Your task to perform on an android device: turn off location history Image 0: 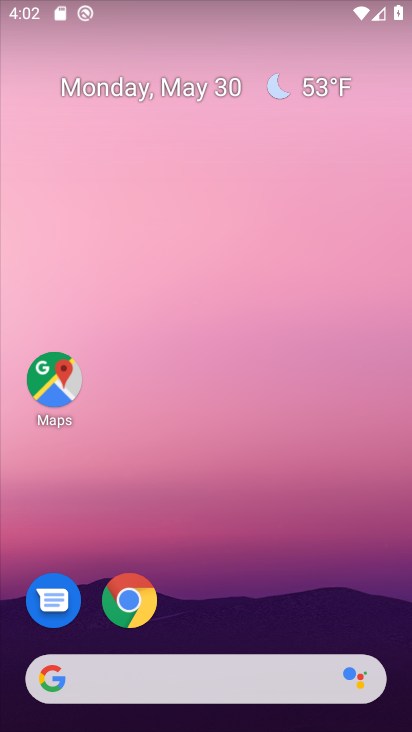
Step 0: drag from (343, 573) to (316, 4)
Your task to perform on an android device: turn off location history Image 1: 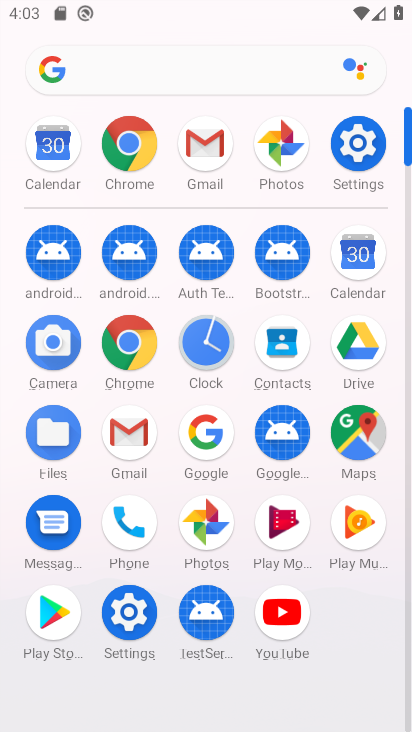
Step 1: click (363, 145)
Your task to perform on an android device: turn off location history Image 2: 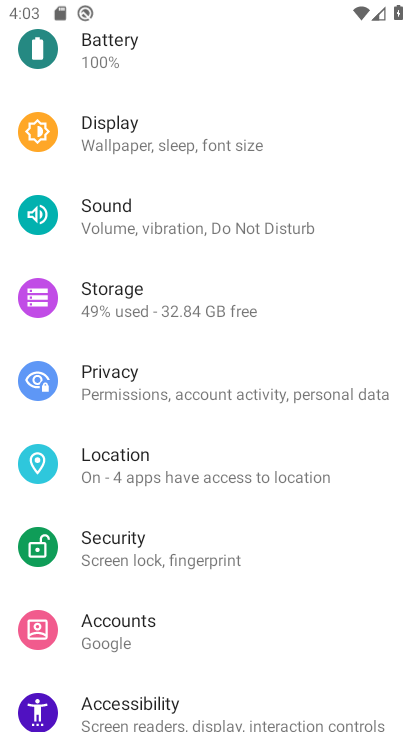
Step 2: click (213, 464)
Your task to perform on an android device: turn off location history Image 3: 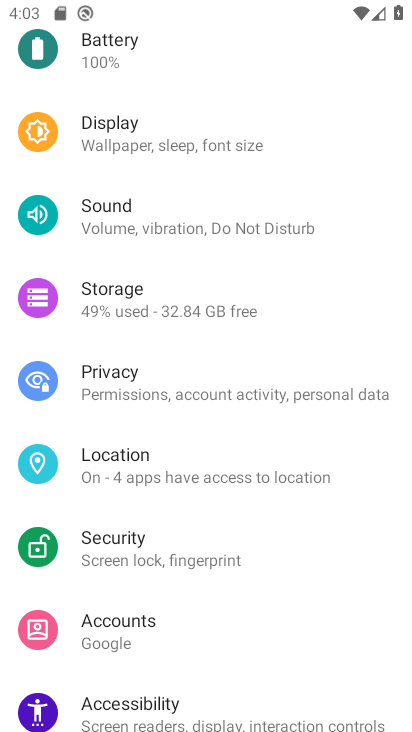
Step 3: click (175, 470)
Your task to perform on an android device: turn off location history Image 4: 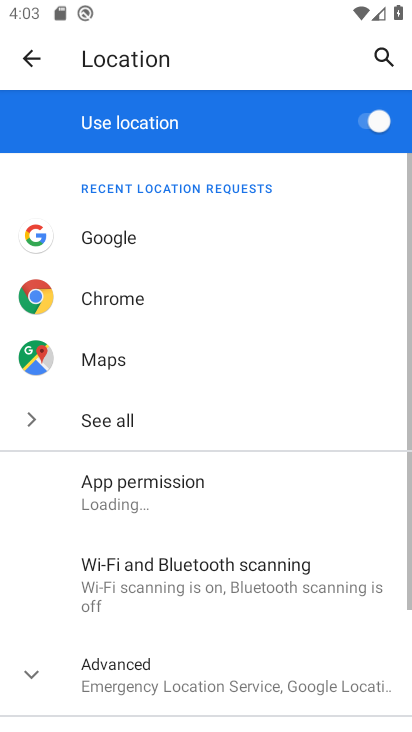
Step 4: drag from (190, 644) to (195, 239)
Your task to perform on an android device: turn off location history Image 5: 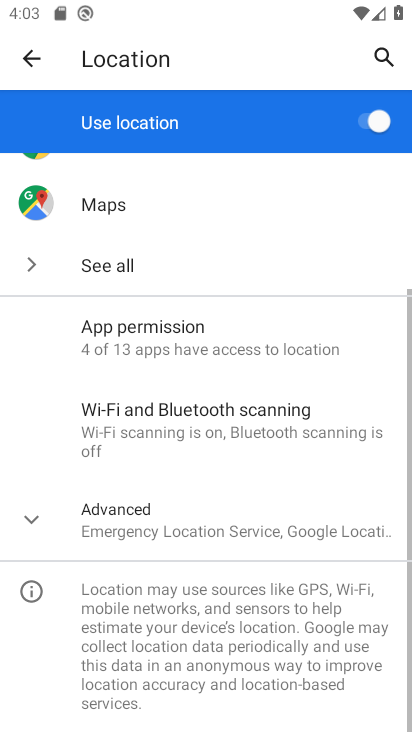
Step 5: click (144, 503)
Your task to perform on an android device: turn off location history Image 6: 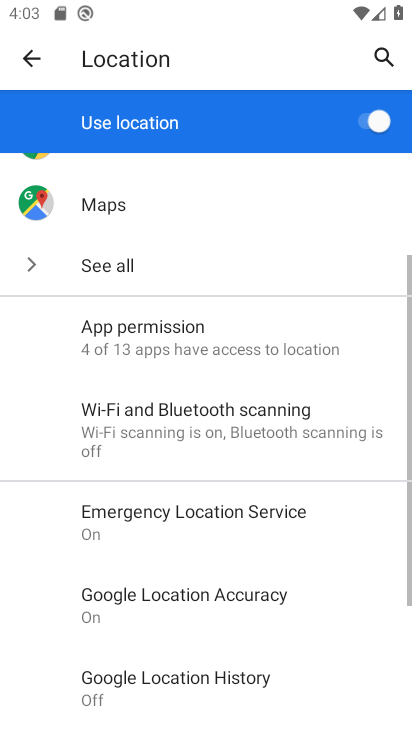
Step 6: drag from (173, 614) to (188, 231)
Your task to perform on an android device: turn off location history Image 7: 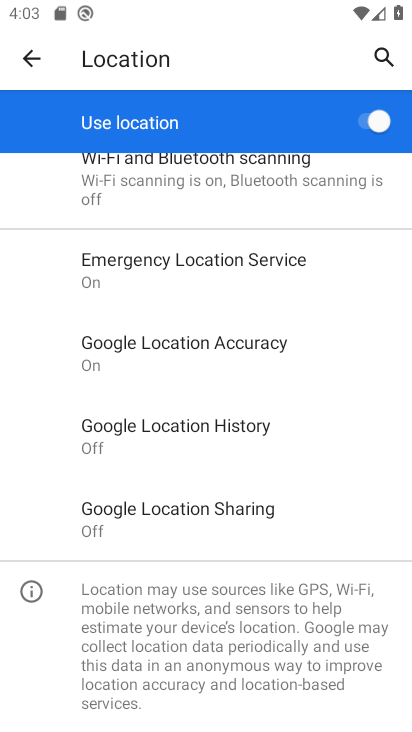
Step 7: click (161, 425)
Your task to perform on an android device: turn off location history Image 8: 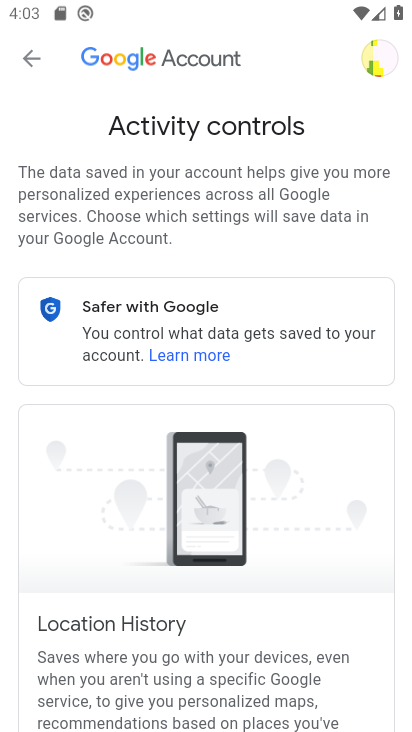
Step 8: drag from (384, 673) to (345, 315)
Your task to perform on an android device: turn off location history Image 9: 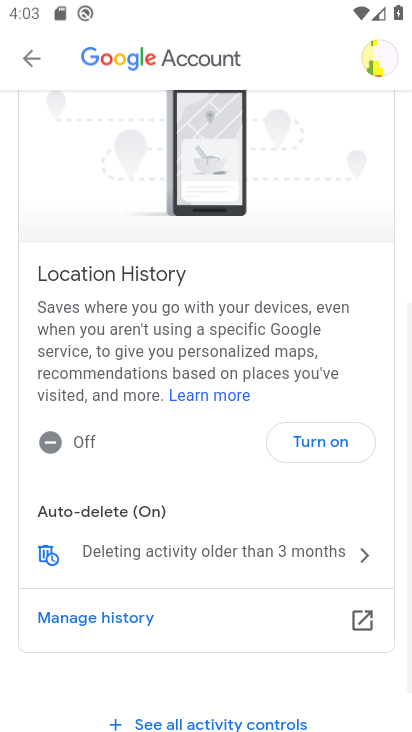
Step 9: drag from (253, 616) to (252, 209)
Your task to perform on an android device: turn off location history Image 10: 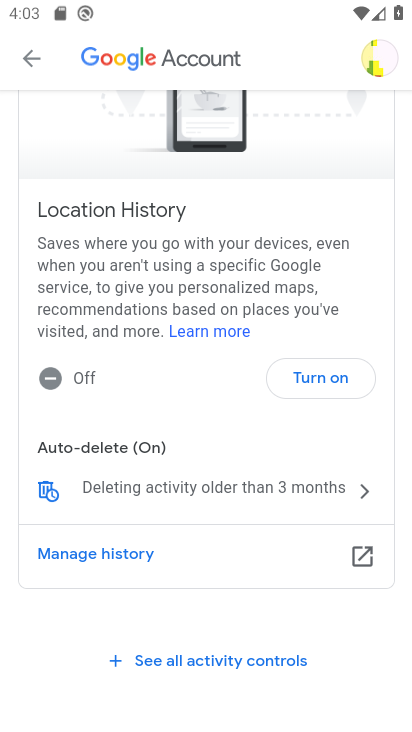
Step 10: click (32, 53)
Your task to perform on an android device: turn off location history Image 11: 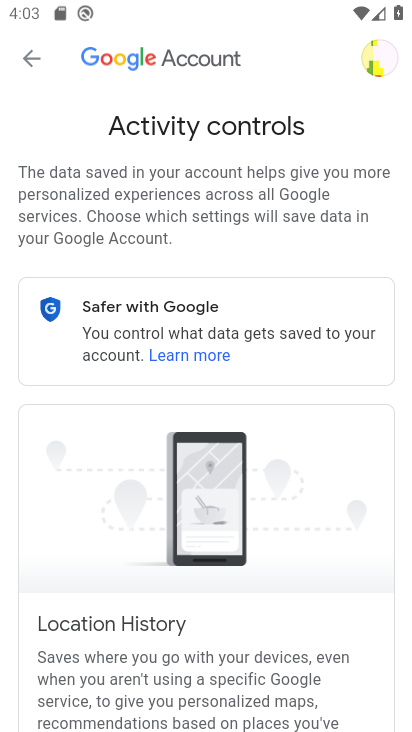
Step 11: drag from (239, 555) to (246, 176)
Your task to perform on an android device: turn off location history Image 12: 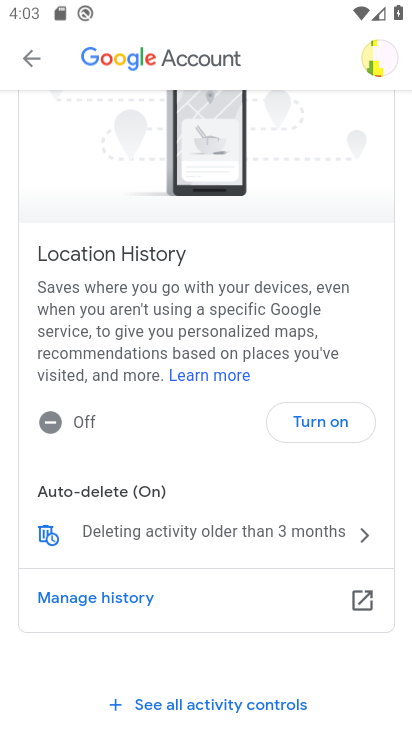
Step 12: drag from (220, 574) to (216, 176)
Your task to perform on an android device: turn off location history Image 13: 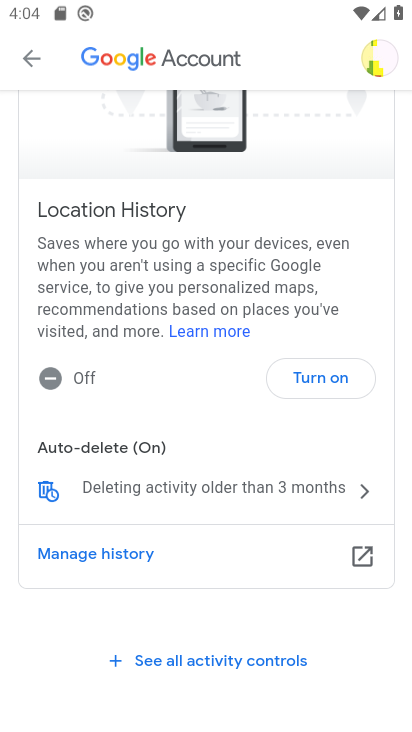
Step 13: click (43, 54)
Your task to perform on an android device: turn off location history Image 14: 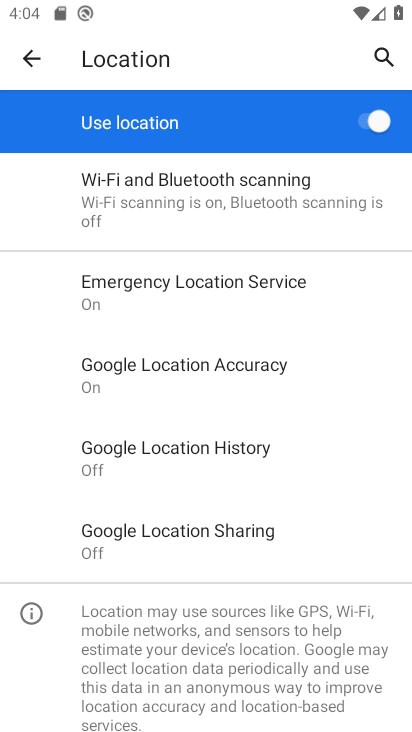
Step 14: click (204, 448)
Your task to perform on an android device: turn off location history Image 15: 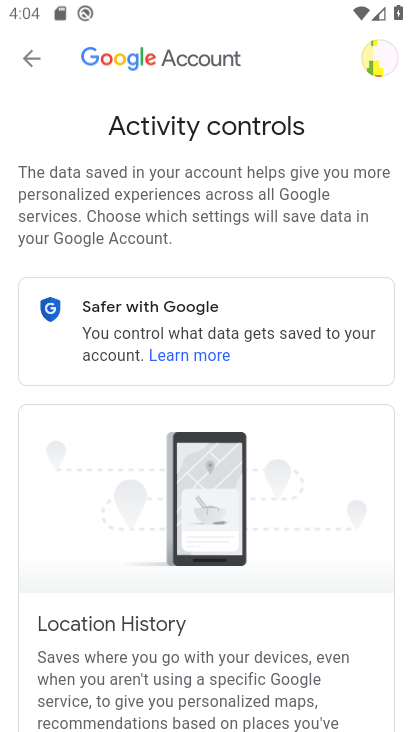
Step 15: task complete